Your task to perform on an android device: Search for Italian restaurants on Maps Image 0: 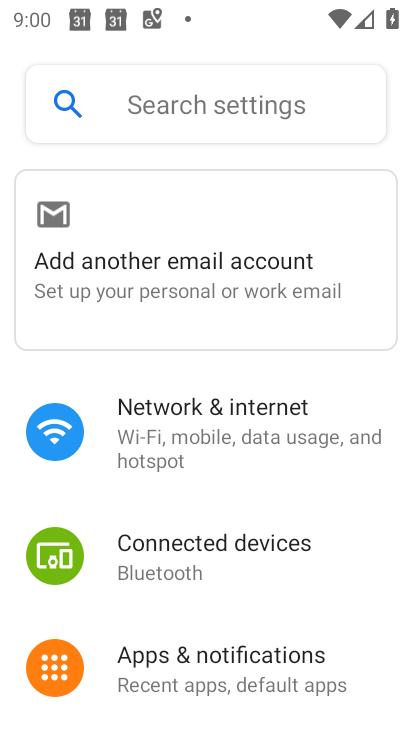
Step 0: press home button
Your task to perform on an android device: Search for Italian restaurants on Maps Image 1: 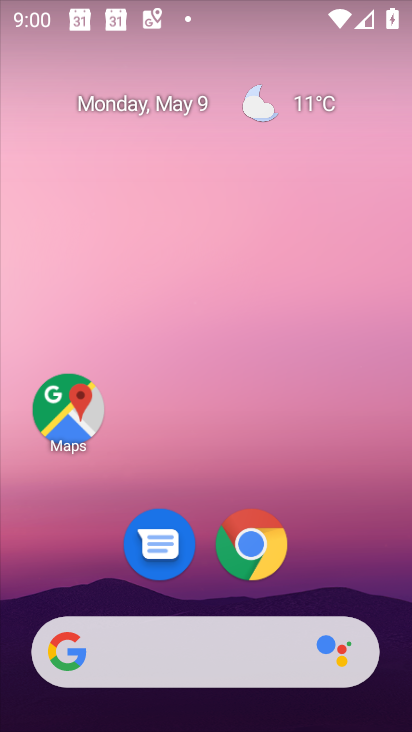
Step 1: click (54, 400)
Your task to perform on an android device: Search for Italian restaurants on Maps Image 2: 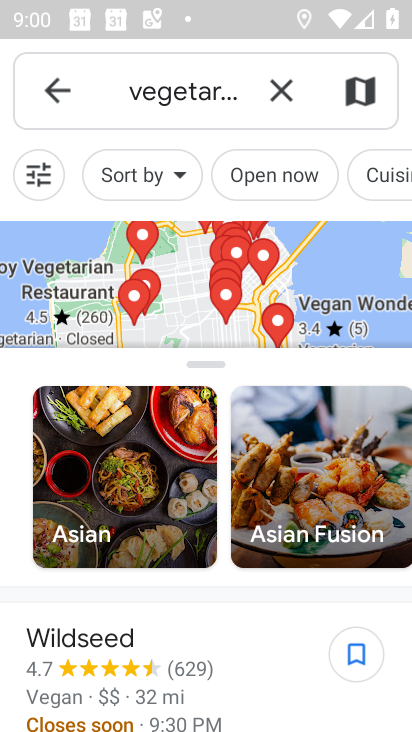
Step 2: click (275, 89)
Your task to perform on an android device: Search for Italian restaurants on Maps Image 3: 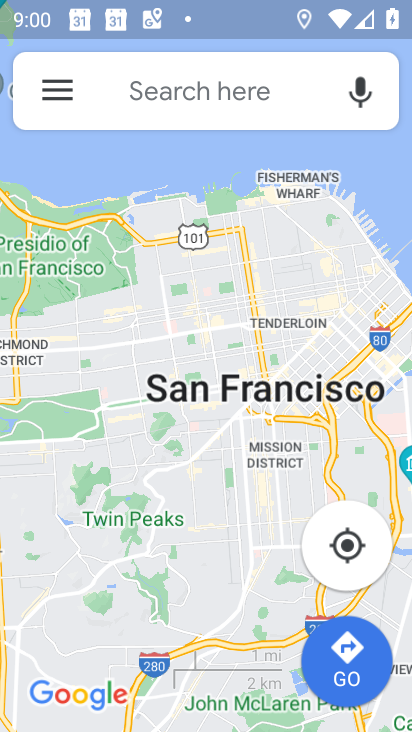
Step 3: click (153, 103)
Your task to perform on an android device: Search for Italian restaurants on Maps Image 4: 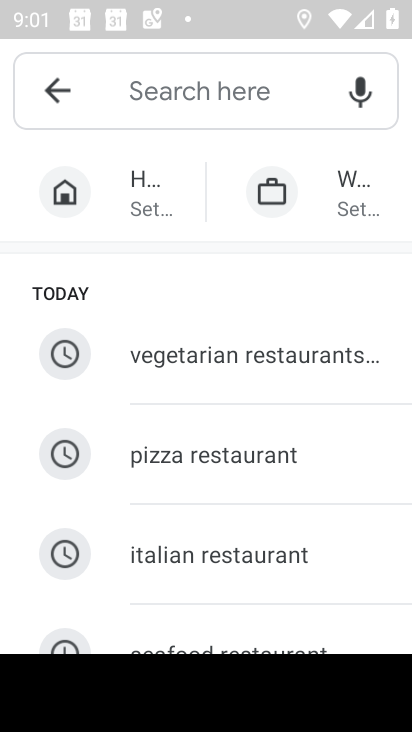
Step 4: type "Italian restaurants"
Your task to perform on an android device: Search for Italian restaurants on Maps Image 5: 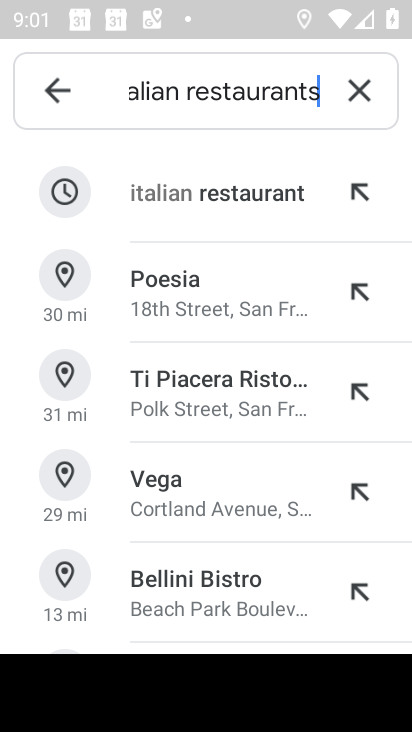
Step 5: click (193, 213)
Your task to perform on an android device: Search for Italian restaurants on Maps Image 6: 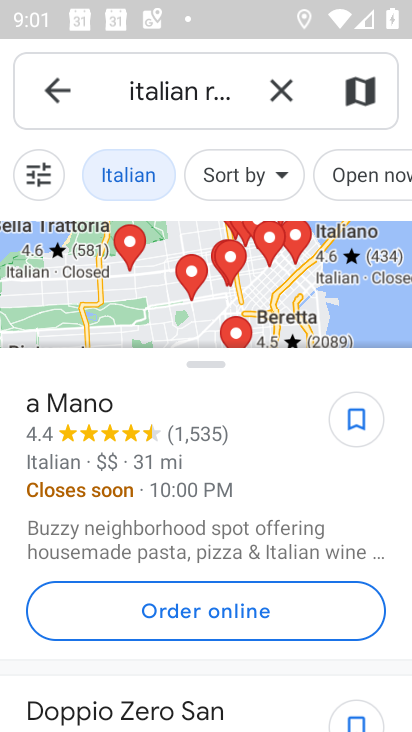
Step 6: task complete